Your task to perform on an android device: Search for vegetarian restaurants on Maps Image 0: 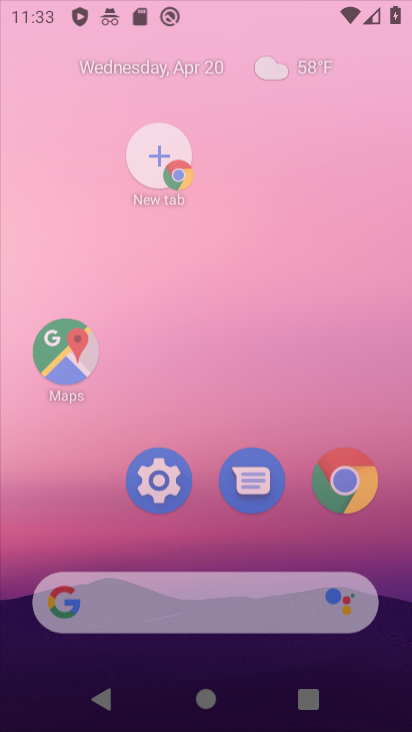
Step 0: drag from (281, 527) to (213, 199)
Your task to perform on an android device: Search for vegetarian restaurants on Maps Image 1: 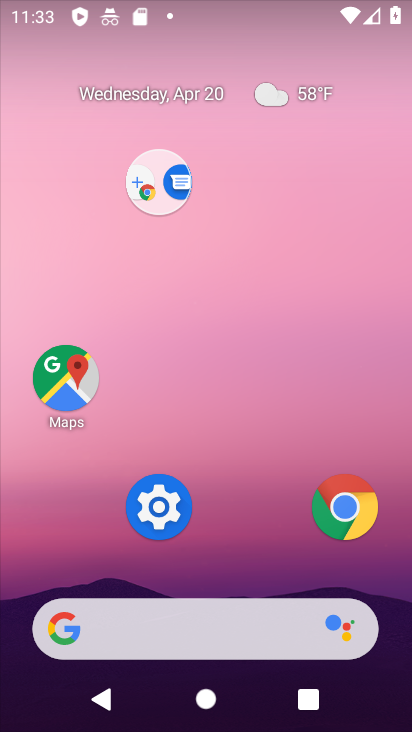
Step 1: drag from (191, 571) to (160, 175)
Your task to perform on an android device: Search for vegetarian restaurants on Maps Image 2: 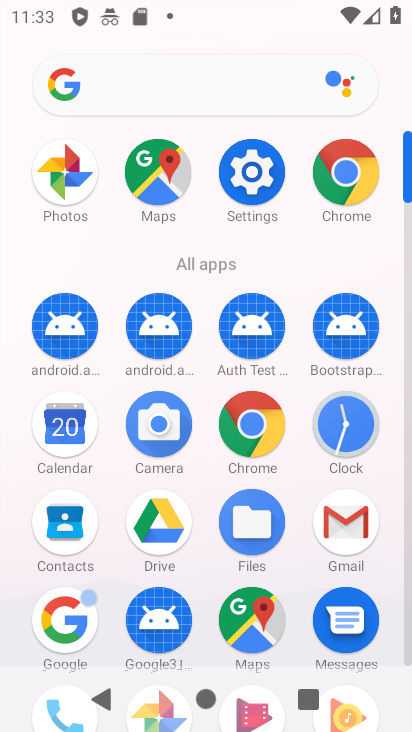
Step 2: click (145, 170)
Your task to perform on an android device: Search for vegetarian restaurants on Maps Image 3: 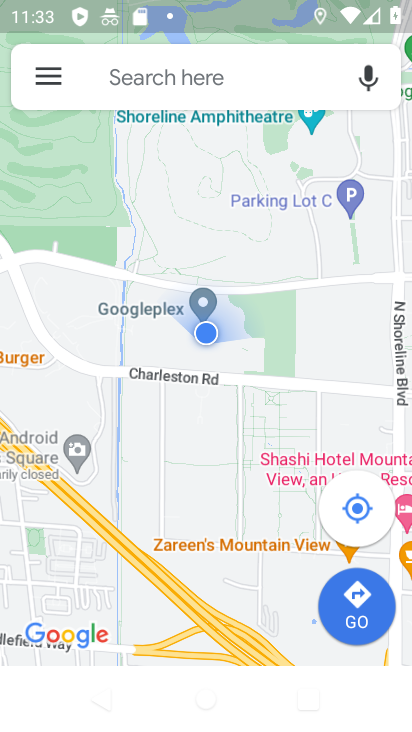
Step 3: click (83, 70)
Your task to perform on an android device: Search for vegetarian restaurants on Maps Image 4: 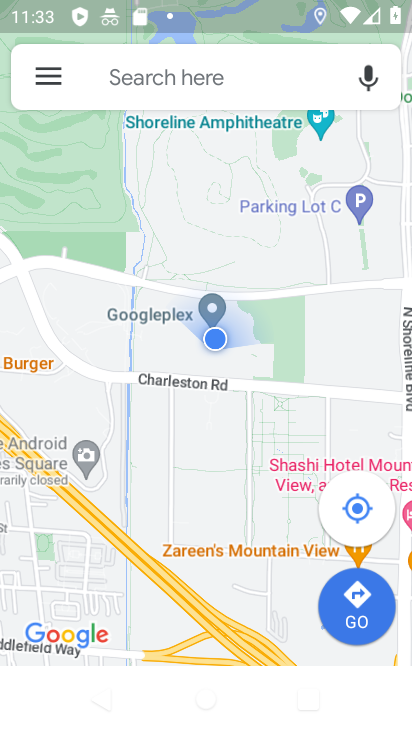
Step 4: click (119, 76)
Your task to perform on an android device: Search for vegetarian restaurants on Maps Image 5: 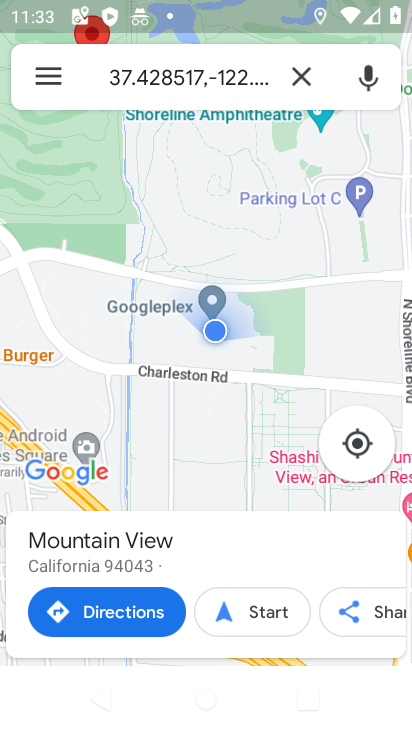
Step 5: click (297, 67)
Your task to perform on an android device: Search for vegetarian restaurants on Maps Image 6: 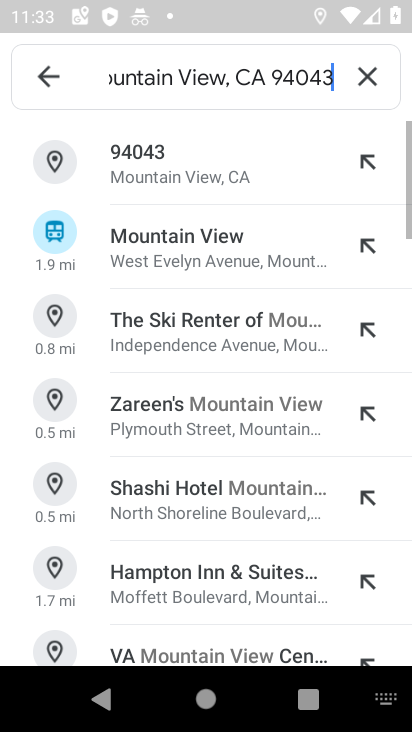
Step 6: click (361, 67)
Your task to perform on an android device: Search for vegetarian restaurants on Maps Image 7: 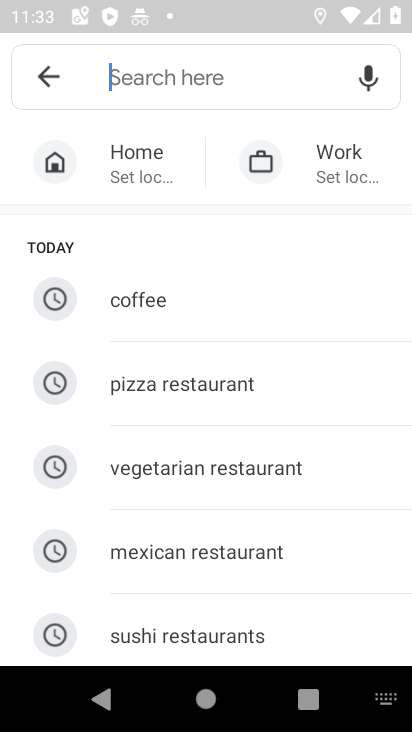
Step 7: click (217, 480)
Your task to perform on an android device: Search for vegetarian restaurants on Maps Image 8: 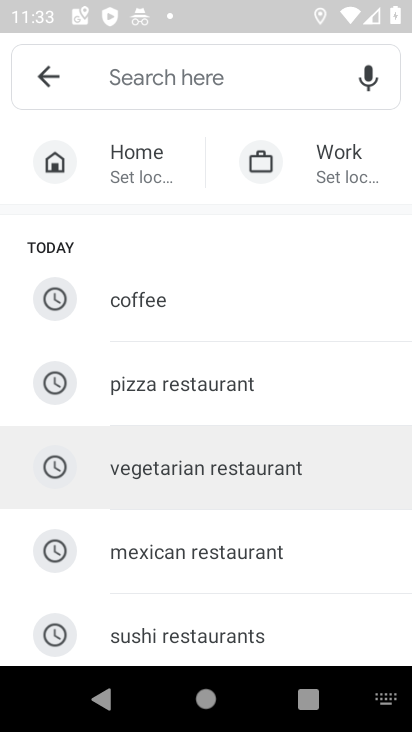
Step 8: click (217, 476)
Your task to perform on an android device: Search for vegetarian restaurants on Maps Image 9: 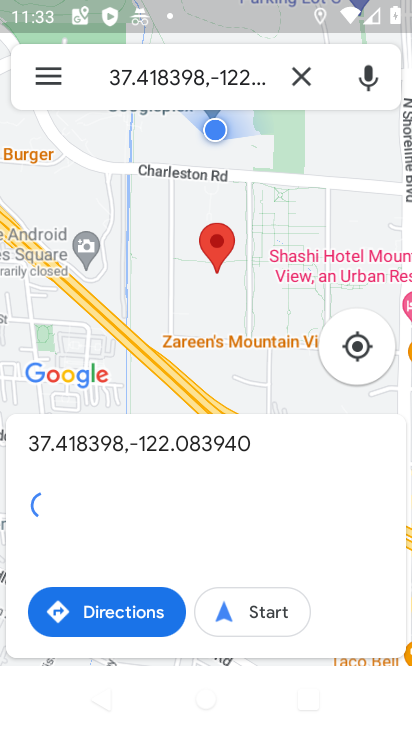
Step 9: click (297, 71)
Your task to perform on an android device: Search for vegetarian restaurants on Maps Image 10: 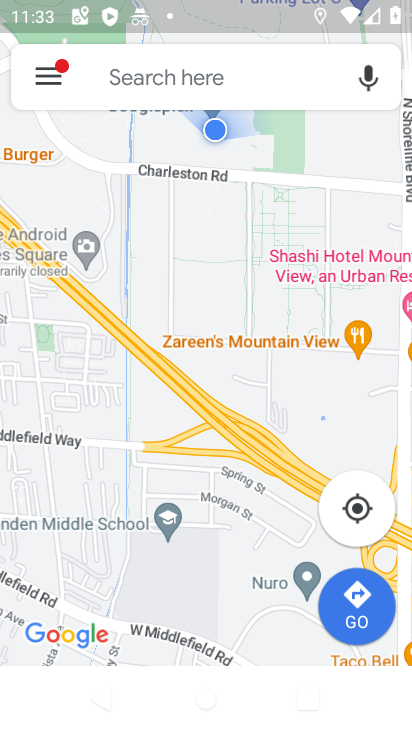
Step 10: click (139, 67)
Your task to perform on an android device: Search for vegetarian restaurants on Maps Image 11: 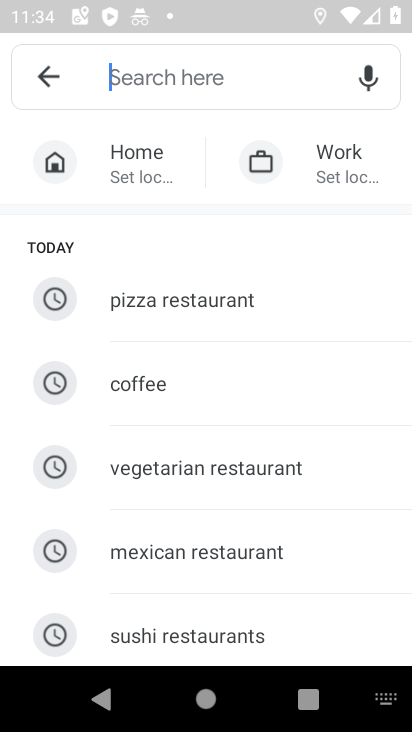
Step 11: type "vegetarian restaurants"
Your task to perform on an android device: Search for vegetarian restaurants on Maps Image 12: 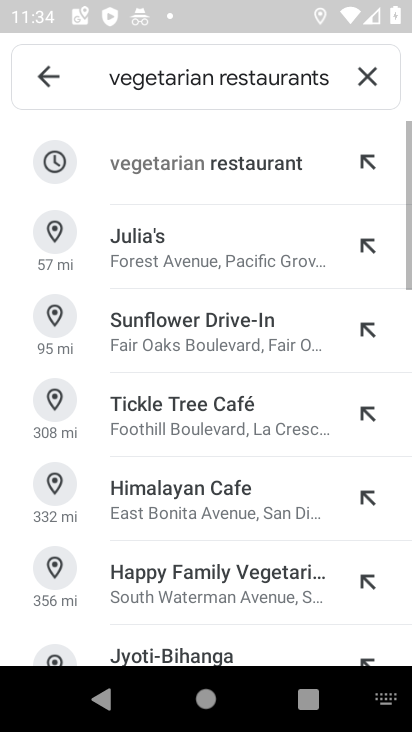
Step 12: click (287, 161)
Your task to perform on an android device: Search for vegetarian restaurants on Maps Image 13: 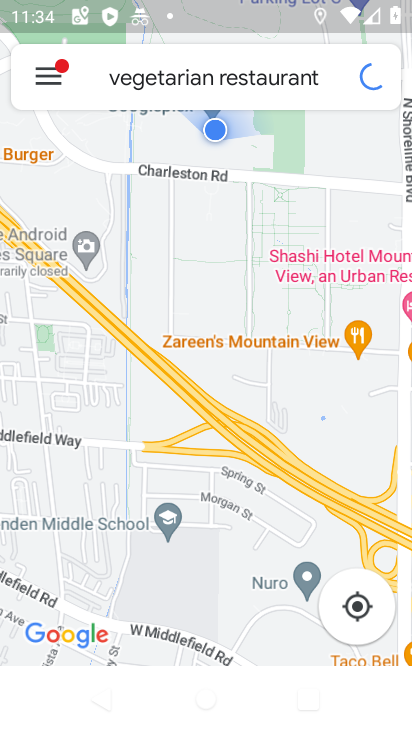
Step 13: task complete